Your task to perform on an android device: toggle javascript in the chrome app Image 0: 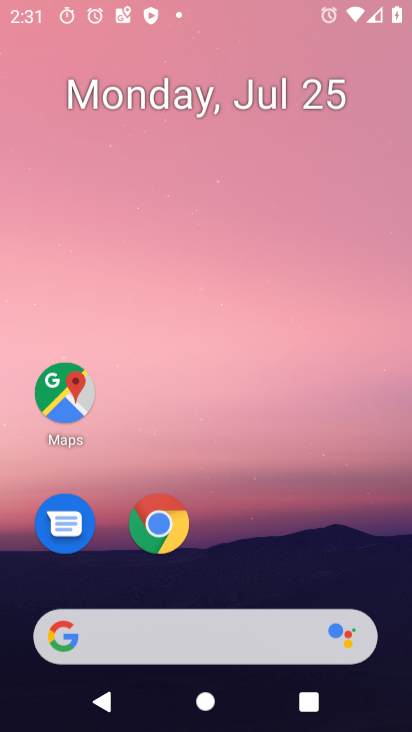
Step 0: press home button
Your task to perform on an android device: toggle javascript in the chrome app Image 1: 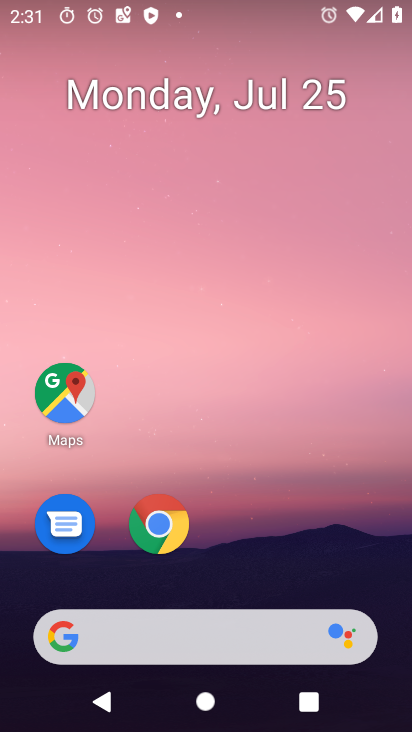
Step 1: drag from (274, 569) to (105, 0)
Your task to perform on an android device: toggle javascript in the chrome app Image 2: 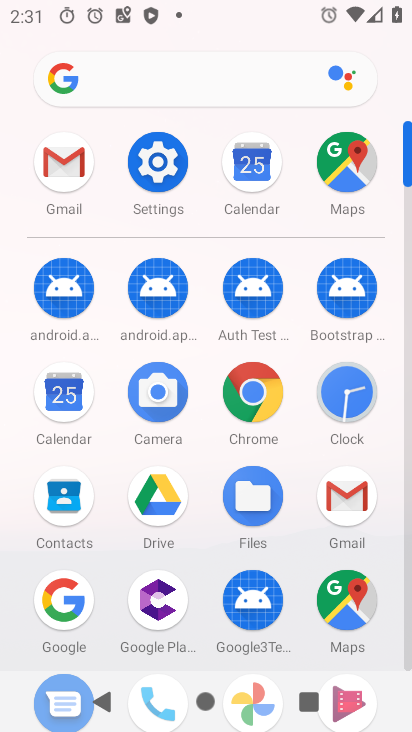
Step 2: click (240, 390)
Your task to perform on an android device: toggle javascript in the chrome app Image 3: 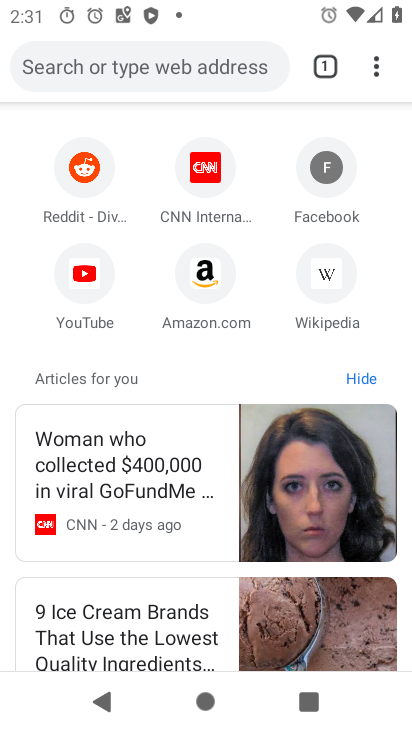
Step 3: drag from (378, 63) to (162, 561)
Your task to perform on an android device: toggle javascript in the chrome app Image 4: 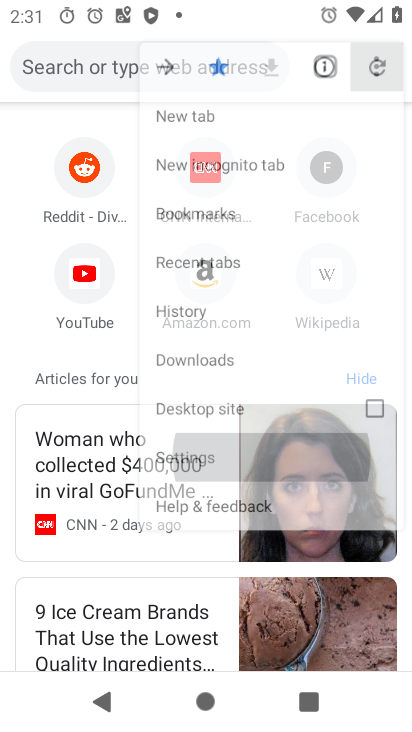
Step 4: click (154, 565)
Your task to perform on an android device: toggle javascript in the chrome app Image 5: 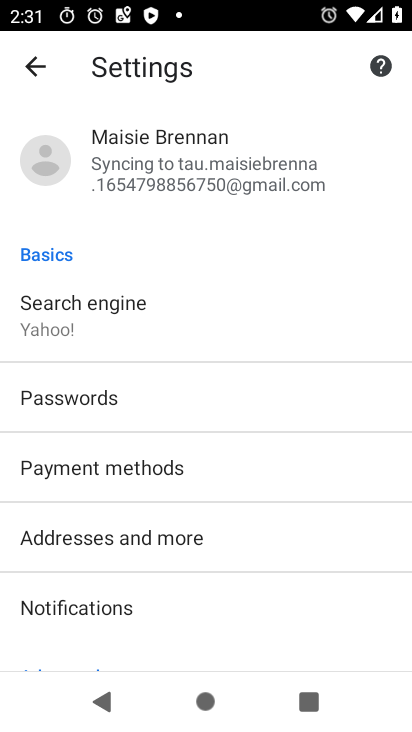
Step 5: drag from (265, 610) to (172, 0)
Your task to perform on an android device: toggle javascript in the chrome app Image 6: 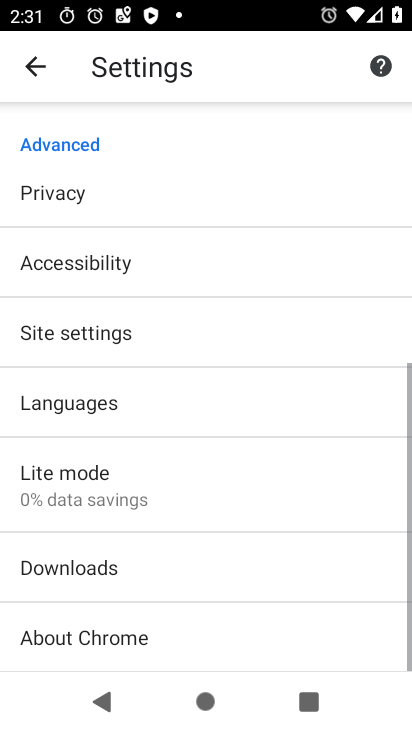
Step 6: drag from (209, 585) to (0, 226)
Your task to perform on an android device: toggle javascript in the chrome app Image 7: 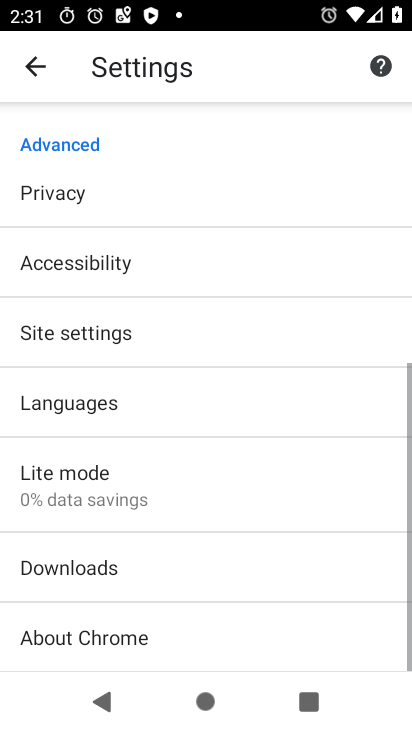
Step 7: click (124, 352)
Your task to perform on an android device: toggle javascript in the chrome app Image 8: 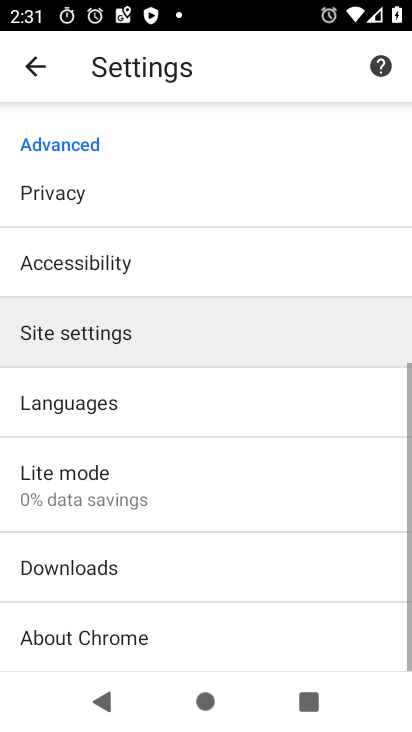
Step 8: click (114, 342)
Your task to perform on an android device: toggle javascript in the chrome app Image 9: 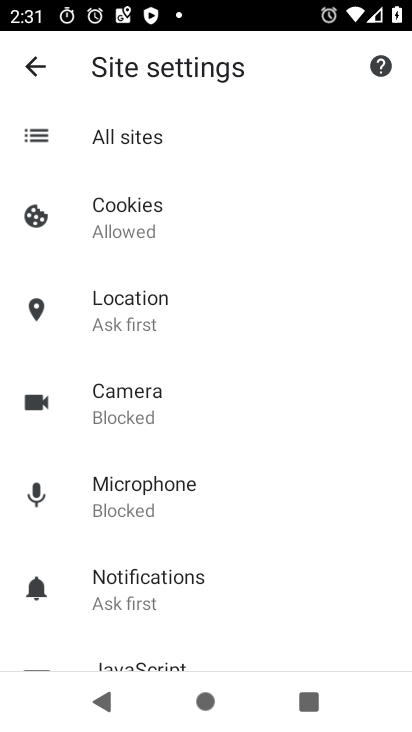
Step 9: drag from (247, 484) to (161, 50)
Your task to perform on an android device: toggle javascript in the chrome app Image 10: 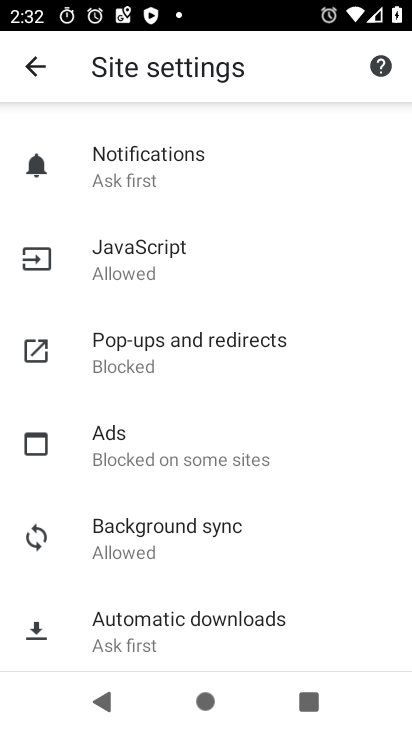
Step 10: click (114, 249)
Your task to perform on an android device: toggle javascript in the chrome app Image 11: 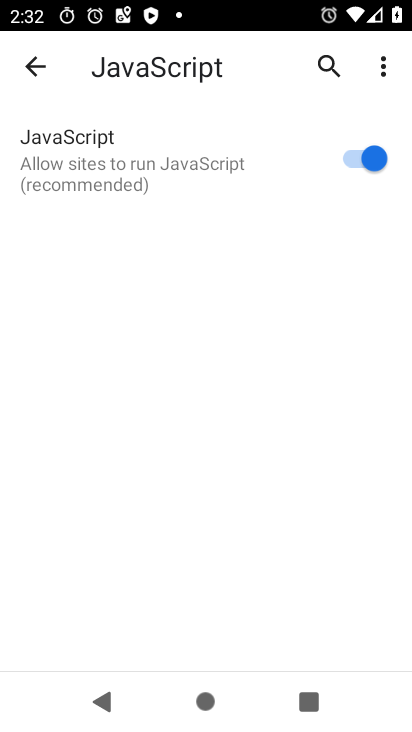
Step 11: click (382, 163)
Your task to perform on an android device: toggle javascript in the chrome app Image 12: 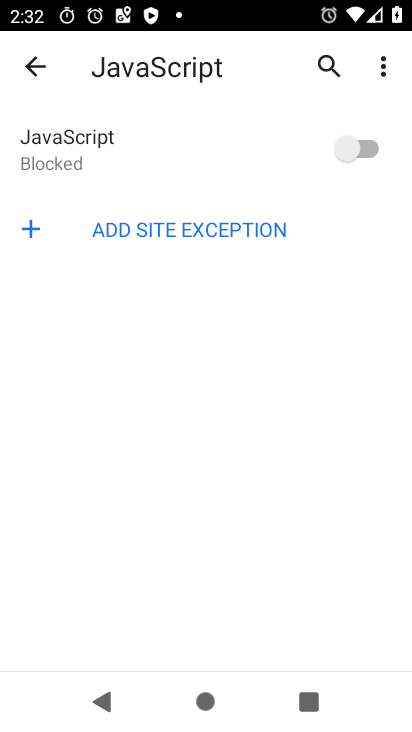
Step 12: task complete